Your task to perform on an android device: Go to privacy settings Image 0: 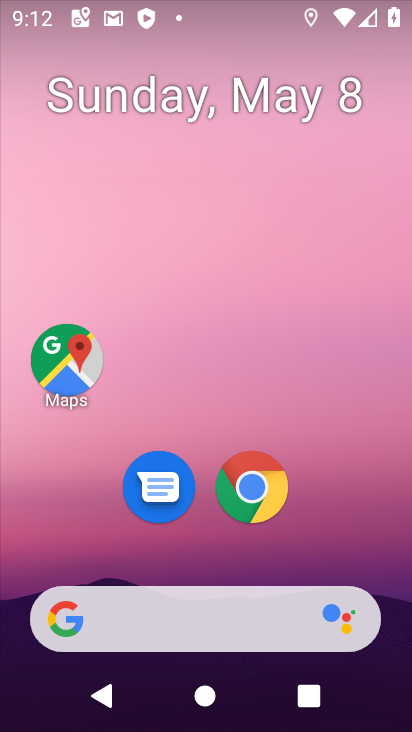
Step 0: drag from (401, 612) to (226, 32)
Your task to perform on an android device: Go to privacy settings Image 1: 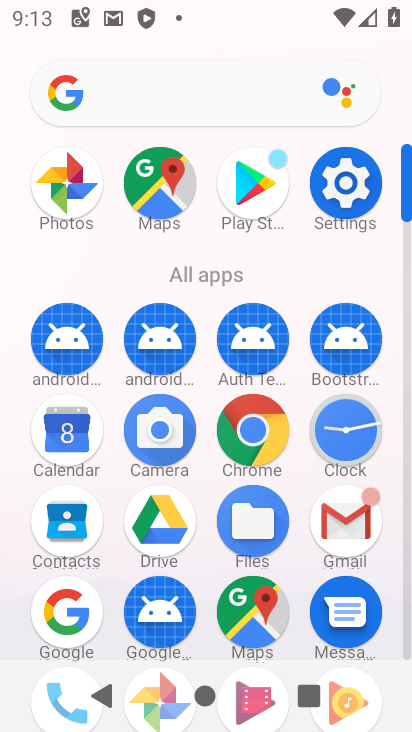
Step 1: click (342, 198)
Your task to perform on an android device: Go to privacy settings Image 2: 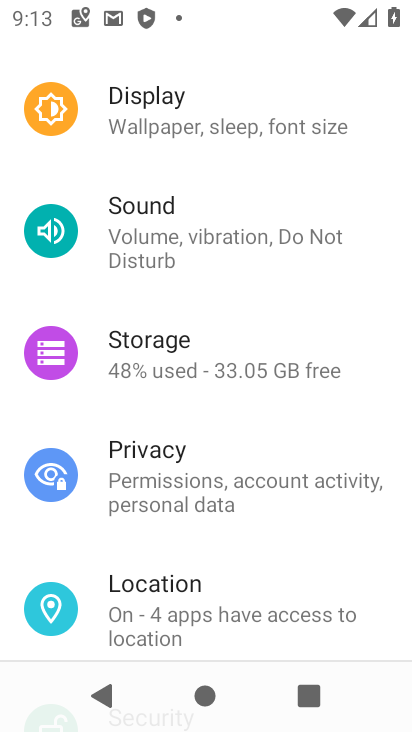
Step 2: click (193, 483)
Your task to perform on an android device: Go to privacy settings Image 3: 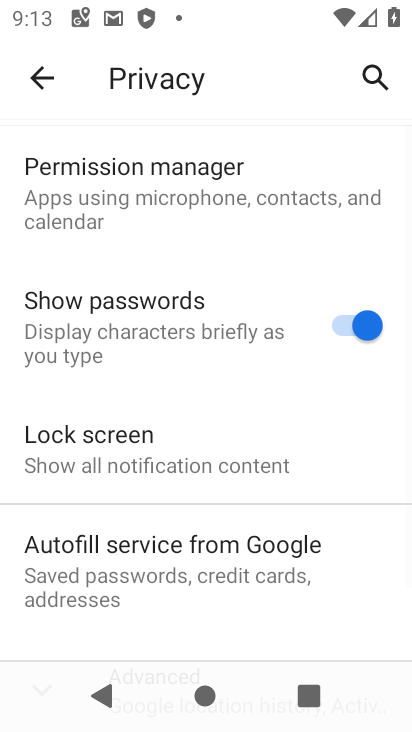
Step 3: task complete